Your task to perform on an android device: turn on location history Image 0: 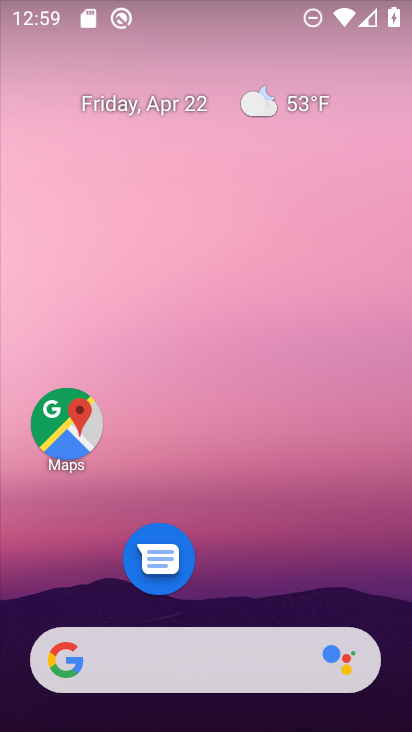
Step 0: drag from (229, 725) to (229, 144)
Your task to perform on an android device: turn on location history Image 1: 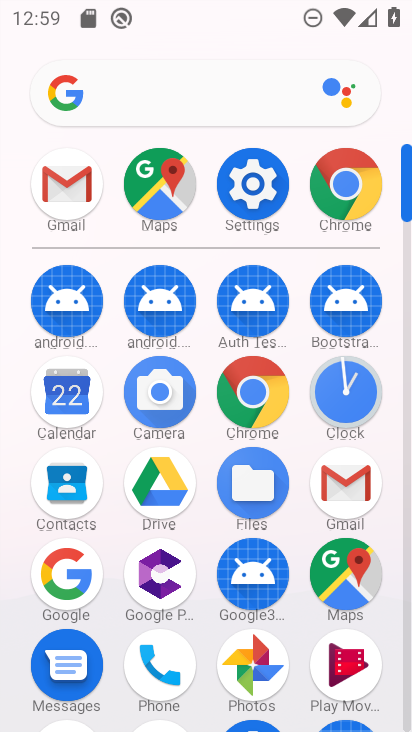
Step 1: click (258, 179)
Your task to perform on an android device: turn on location history Image 2: 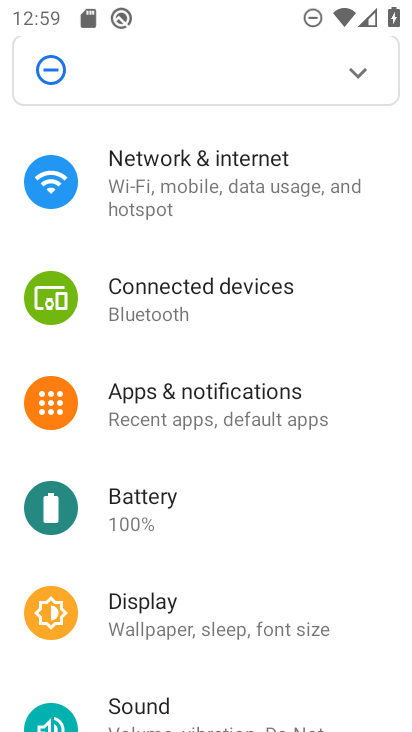
Step 2: drag from (214, 678) to (230, 253)
Your task to perform on an android device: turn on location history Image 3: 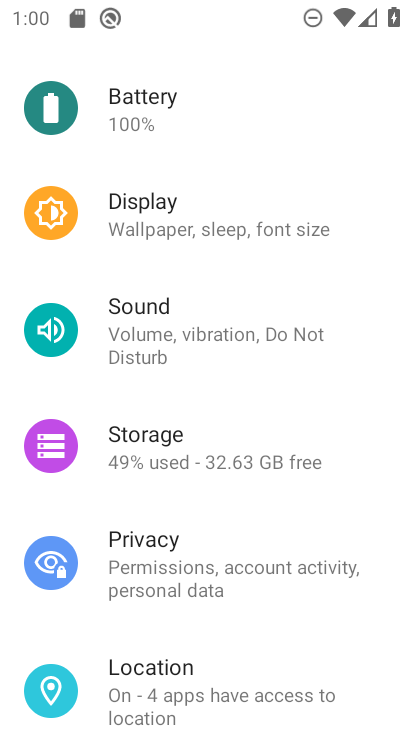
Step 3: click (177, 677)
Your task to perform on an android device: turn on location history Image 4: 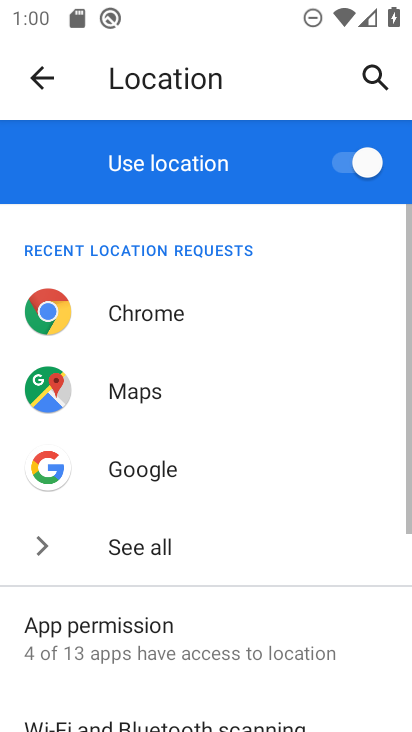
Step 4: drag from (211, 697) to (222, 309)
Your task to perform on an android device: turn on location history Image 5: 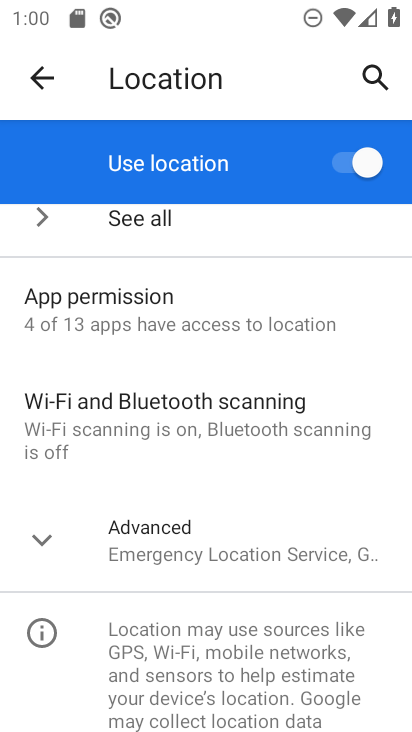
Step 5: click (157, 541)
Your task to perform on an android device: turn on location history Image 6: 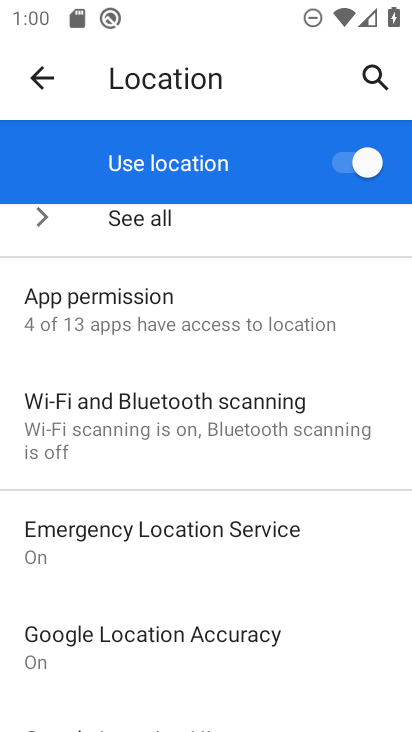
Step 6: drag from (208, 668) to (231, 351)
Your task to perform on an android device: turn on location history Image 7: 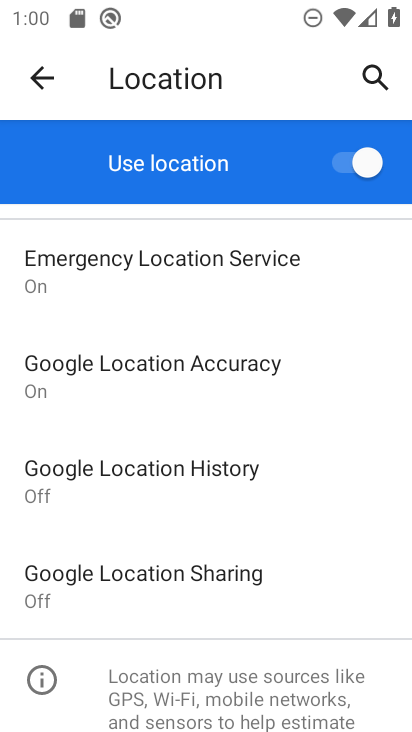
Step 7: click (154, 473)
Your task to perform on an android device: turn on location history Image 8: 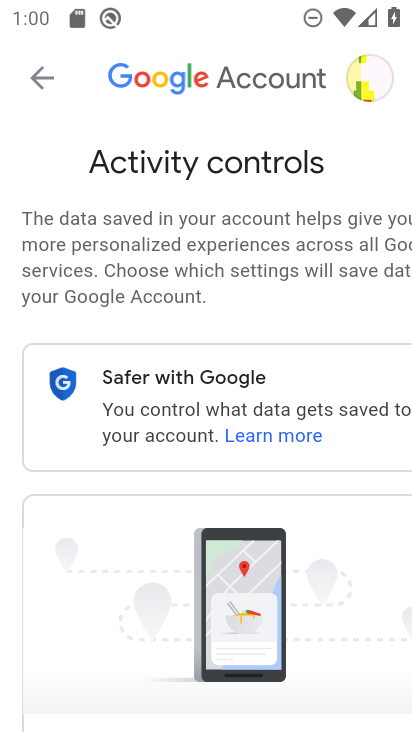
Step 8: task complete